Your task to perform on an android device: delete the emails in spam in the gmail app Image 0: 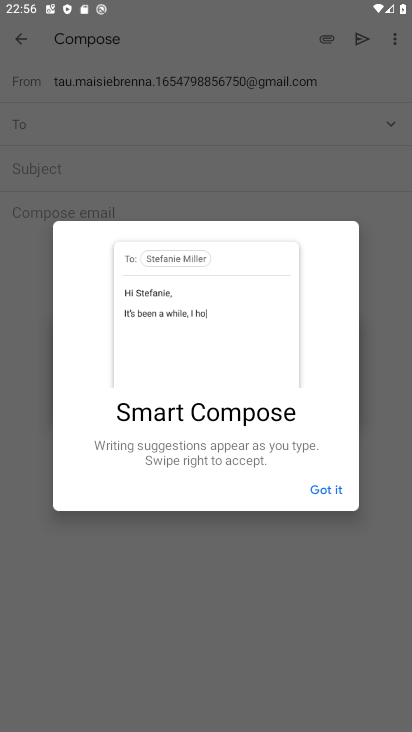
Step 0: press home button
Your task to perform on an android device: delete the emails in spam in the gmail app Image 1: 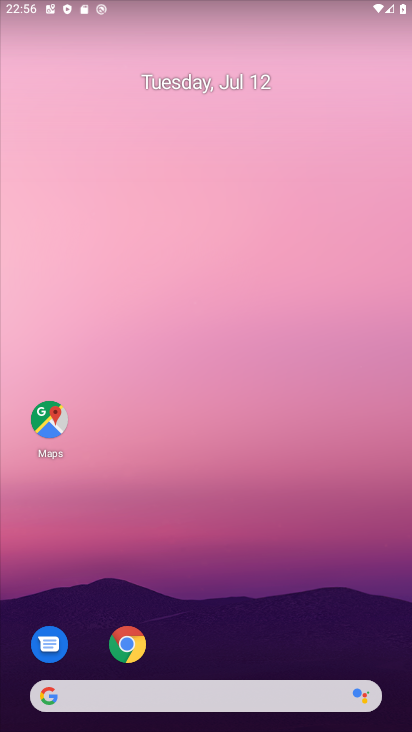
Step 1: drag from (178, 725) to (409, 2)
Your task to perform on an android device: delete the emails in spam in the gmail app Image 2: 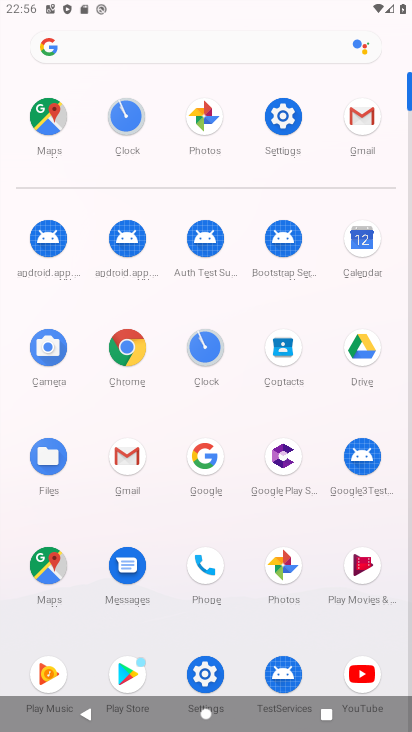
Step 2: click (358, 117)
Your task to perform on an android device: delete the emails in spam in the gmail app Image 3: 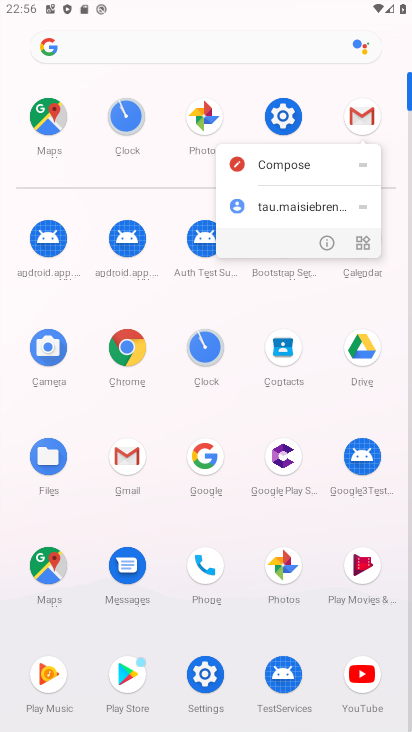
Step 3: click (353, 122)
Your task to perform on an android device: delete the emails in spam in the gmail app Image 4: 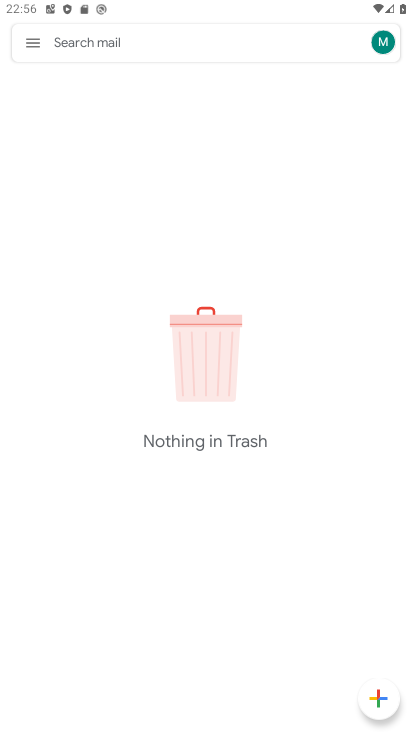
Step 4: click (38, 43)
Your task to perform on an android device: delete the emails in spam in the gmail app Image 5: 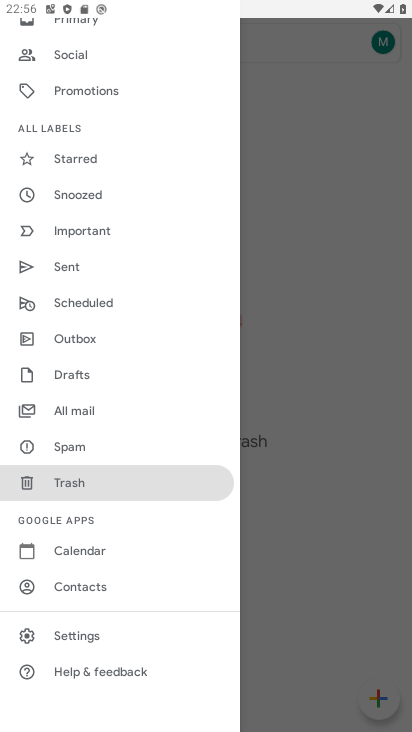
Step 5: click (106, 451)
Your task to perform on an android device: delete the emails in spam in the gmail app Image 6: 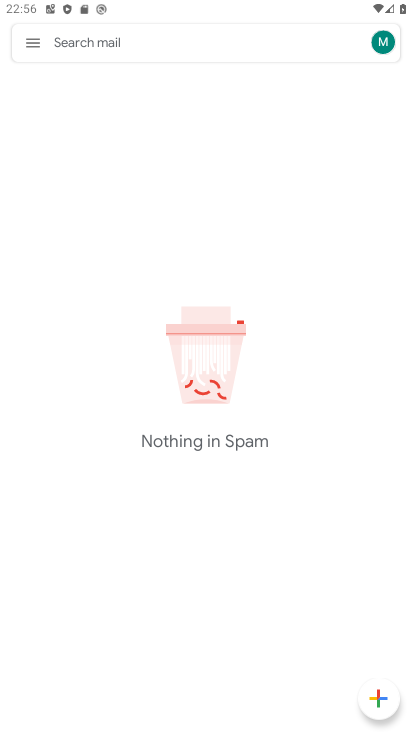
Step 6: task complete